Your task to perform on an android device: turn on javascript in the chrome app Image 0: 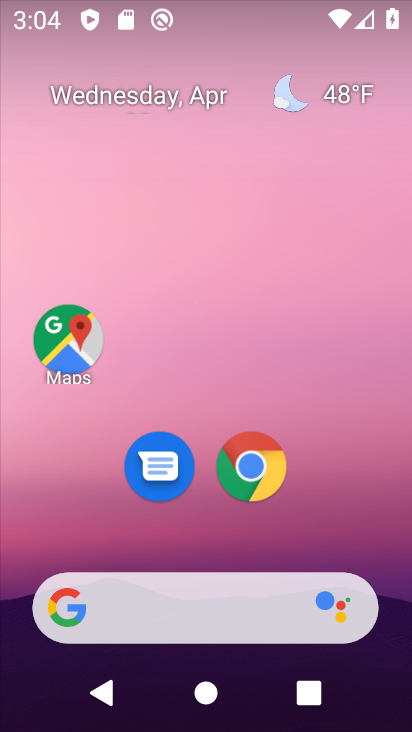
Step 0: click (267, 464)
Your task to perform on an android device: turn on javascript in the chrome app Image 1: 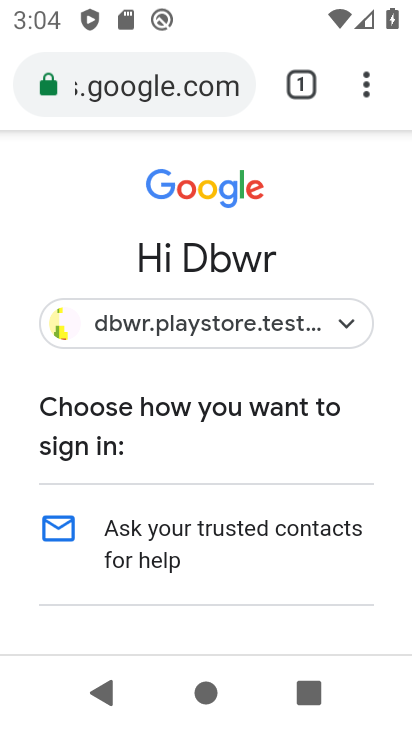
Step 1: click (369, 86)
Your task to perform on an android device: turn on javascript in the chrome app Image 2: 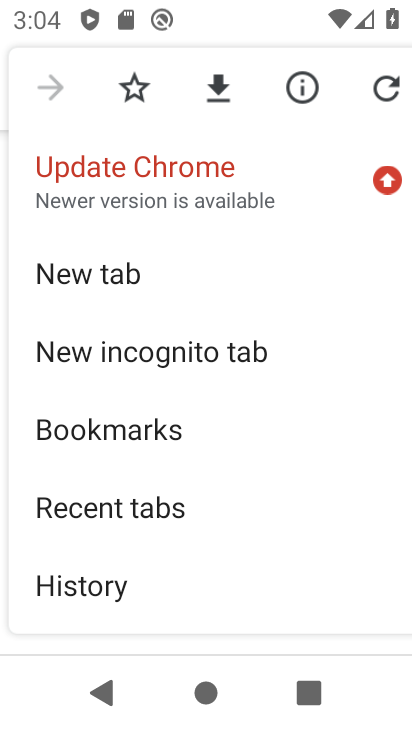
Step 2: drag from (272, 567) to (229, 109)
Your task to perform on an android device: turn on javascript in the chrome app Image 3: 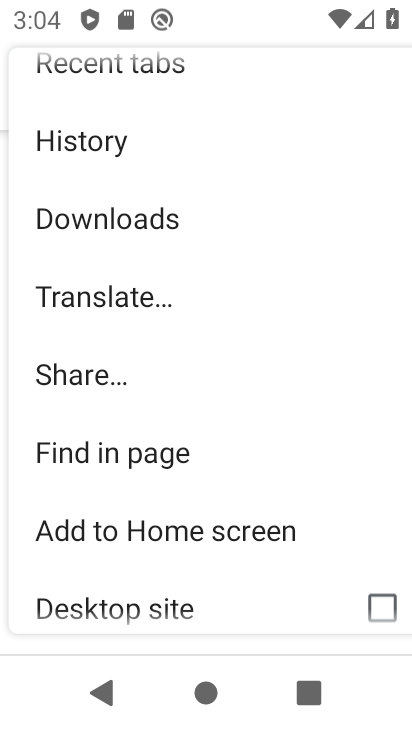
Step 3: drag from (213, 553) to (201, 140)
Your task to perform on an android device: turn on javascript in the chrome app Image 4: 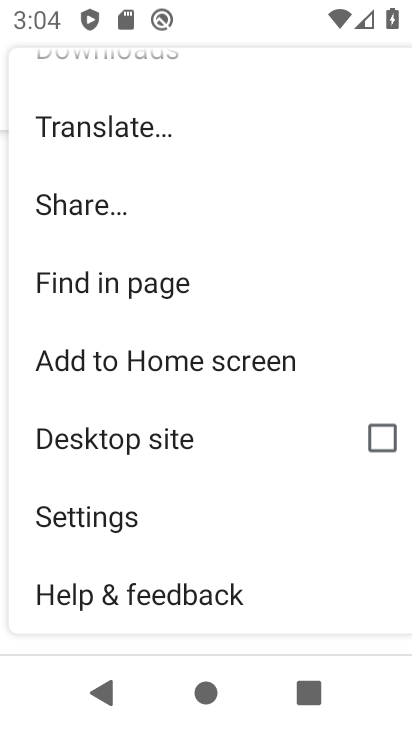
Step 4: click (181, 512)
Your task to perform on an android device: turn on javascript in the chrome app Image 5: 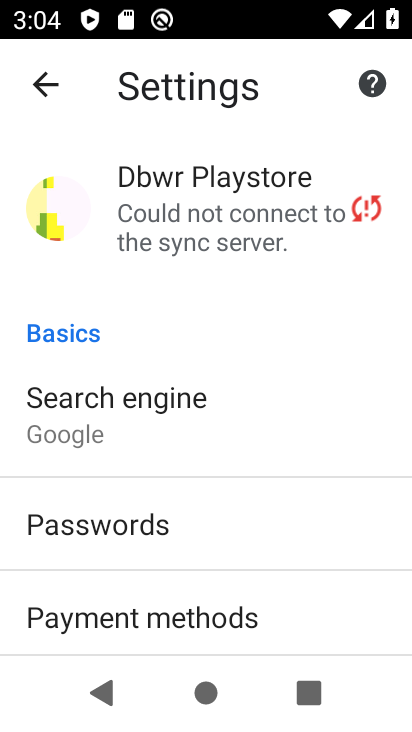
Step 5: drag from (249, 568) to (234, 165)
Your task to perform on an android device: turn on javascript in the chrome app Image 6: 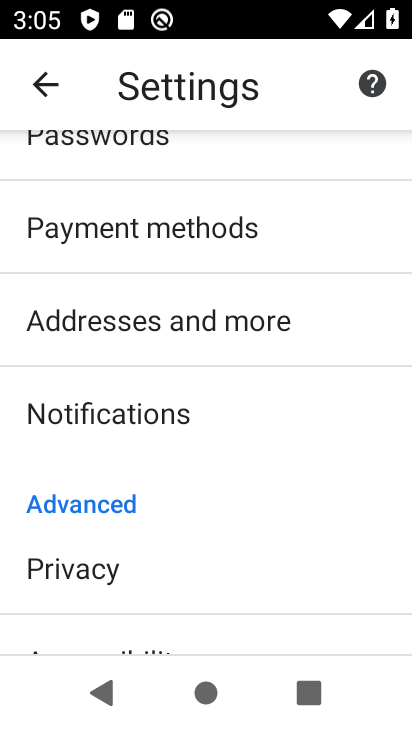
Step 6: drag from (243, 538) to (232, 201)
Your task to perform on an android device: turn on javascript in the chrome app Image 7: 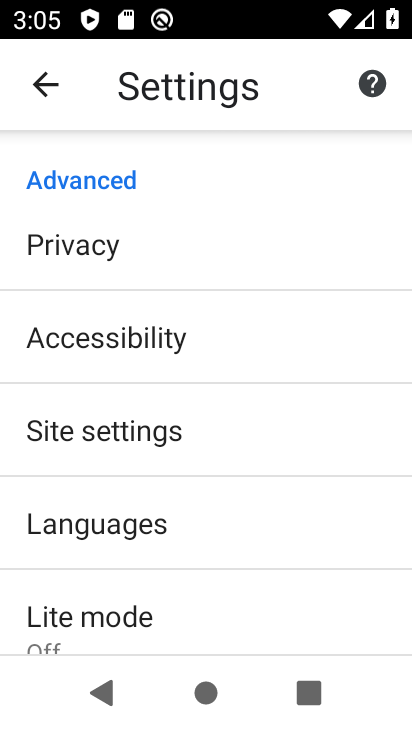
Step 7: click (149, 432)
Your task to perform on an android device: turn on javascript in the chrome app Image 8: 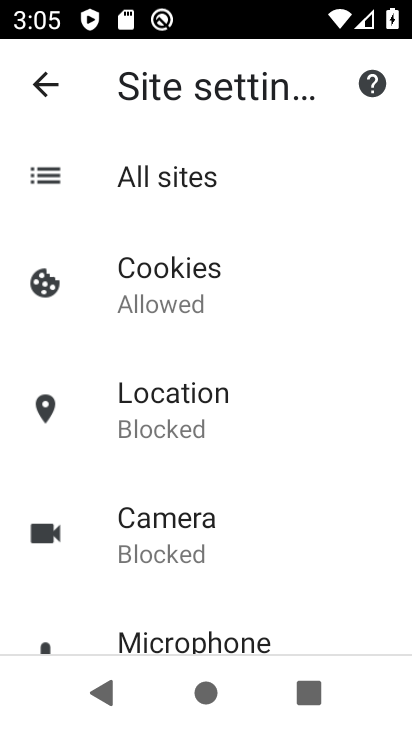
Step 8: drag from (237, 571) to (220, 233)
Your task to perform on an android device: turn on javascript in the chrome app Image 9: 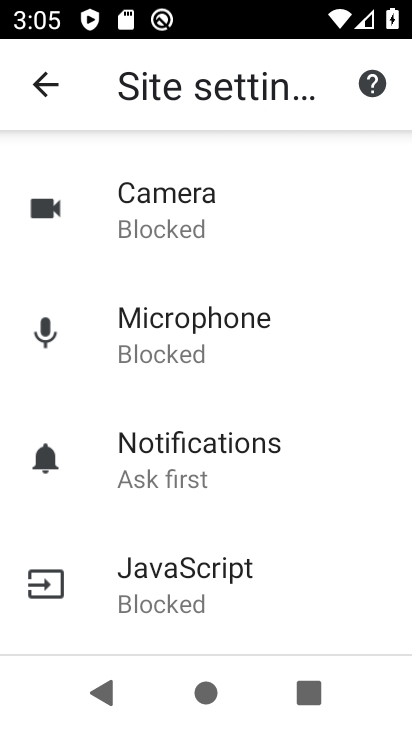
Step 9: click (212, 572)
Your task to perform on an android device: turn on javascript in the chrome app Image 10: 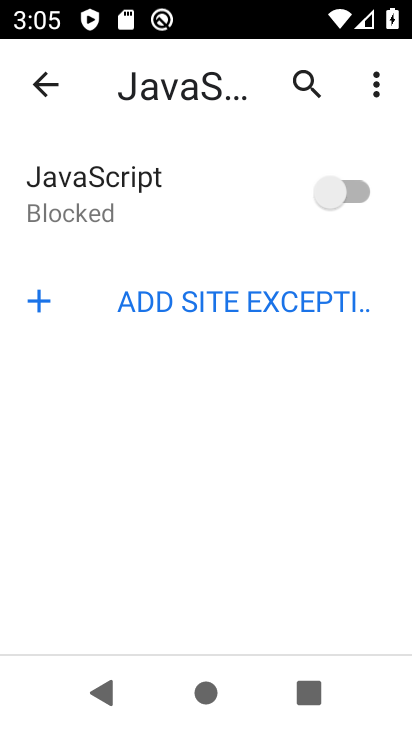
Step 10: click (354, 195)
Your task to perform on an android device: turn on javascript in the chrome app Image 11: 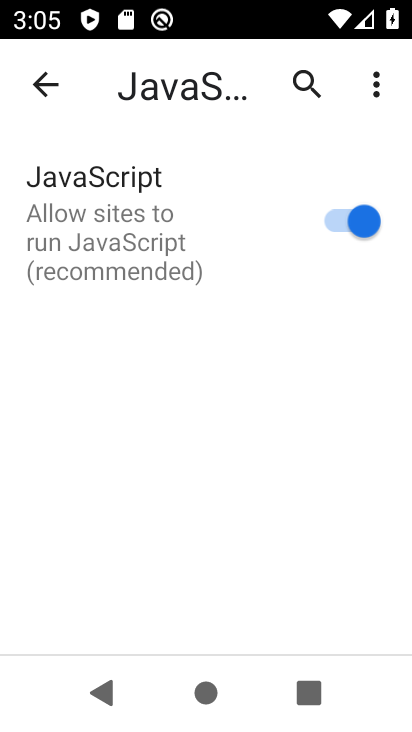
Step 11: task complete